Your task to perform on an android device: Open the calendar and show me this week's events Image 0: 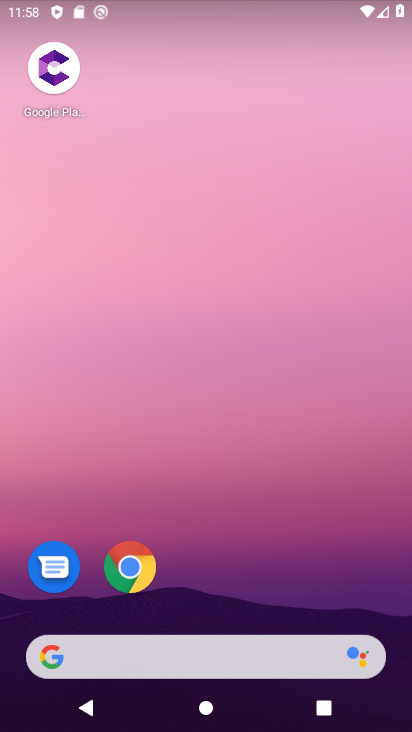
Step 0: drag from (283, 434) to (308, 269)
Your task to perform on an android device: Open the calendar and show me this week's events Image 1: 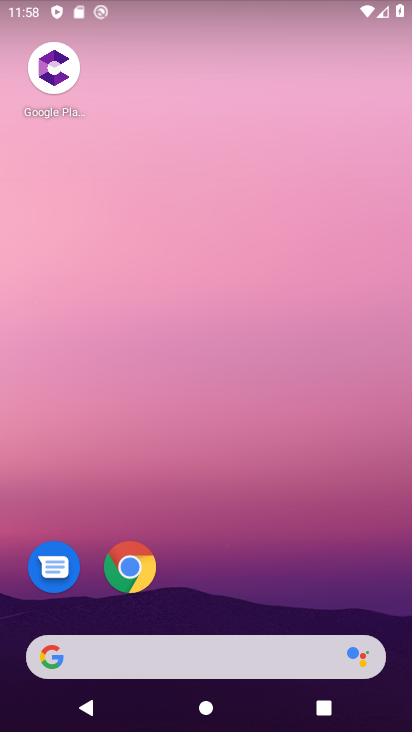
Step 1: drag from (257, 587) to (314, 141)
Your task to perform on an android device: Open the calendar and show me this week's events Image 2: 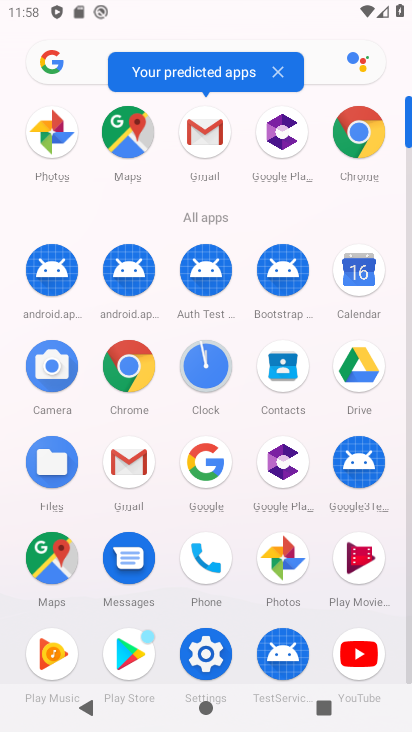
Step 2: click (358, 279)
Your task to perform on an android device: Open the calendar and show me this week's events Image 3: 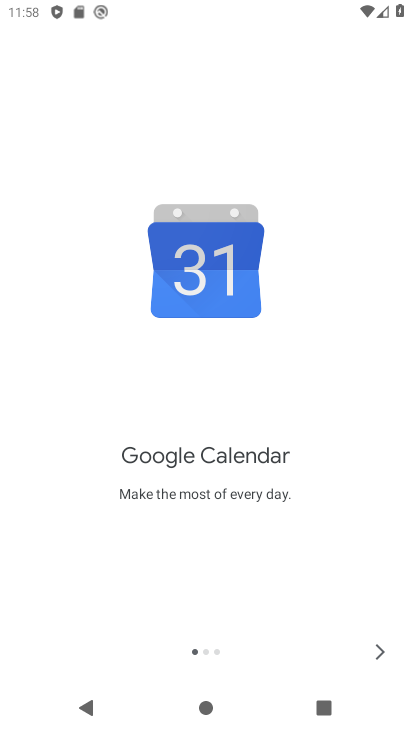
Step 3: click (382, 651)
Your task to perform on an android device: Open the calendar and show me this week's events Image 4: 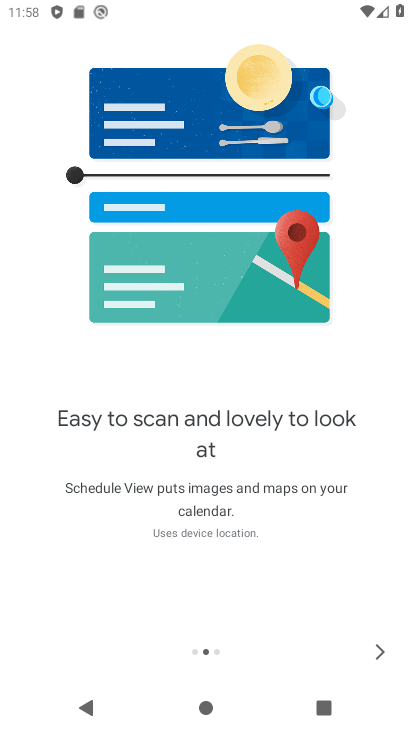
Step 4: click (381, 653)
Your task to perform on an android device: Open the calendar and show me this week's events Image 5: 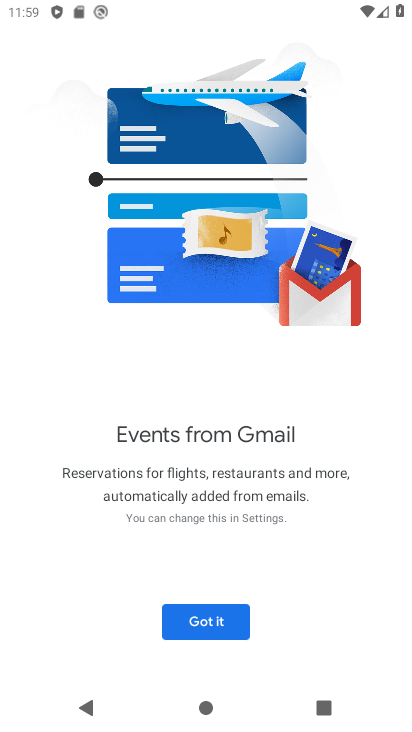
Step 5: click (216, 625)
Your task to perform on an android device: Open the calendar and show me this week's events Image 6: 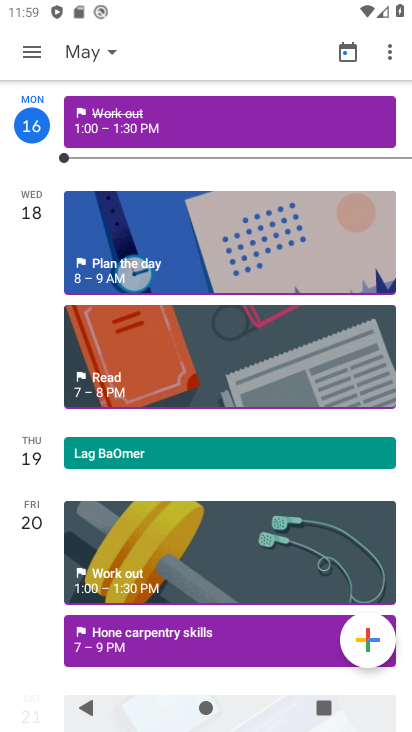
Step 6: click (104, 56)
Your task to perform on an android device: Open the calendar and show me this week's events Image 7: 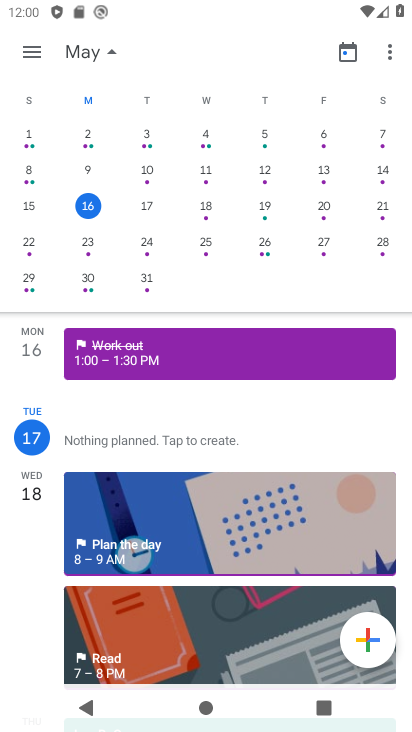
Step 7: click (382, 212)
Your task to perform on an android device: Open the calendar and show me this week's events Image 8: 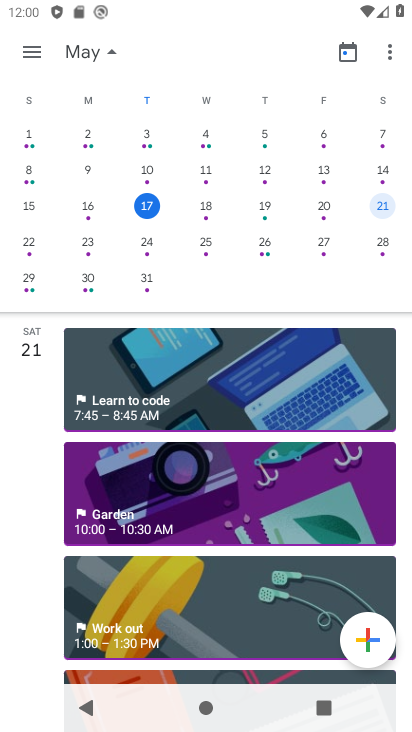
Step 8: click (33, 249)
Your task to perform on an android device: Open the calendar and show me this week's events Image 9: 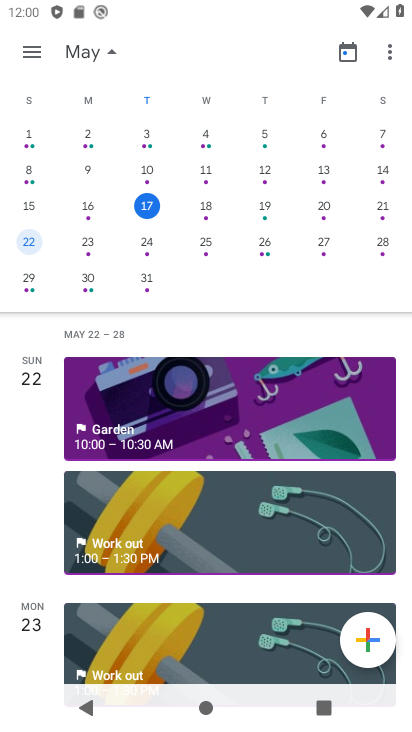
Step 9: task complete